Your task to perform on an android device: open app "ZOOM Cloud Meetings" (install if not already installed) Image 0: 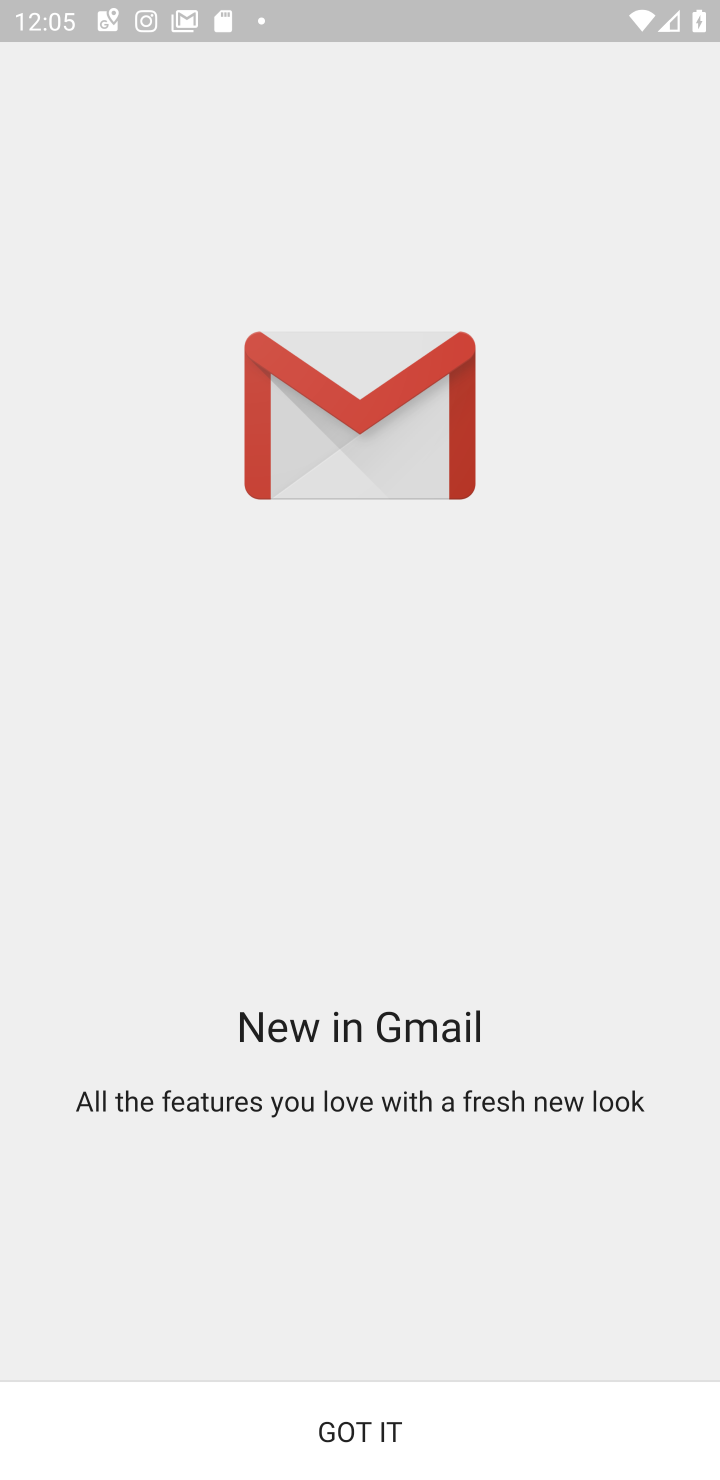
Step 0: press home button
Your task to perform on an android device: open app "ZOOM Cloud Meetings" (install if not already installed) Image 1: 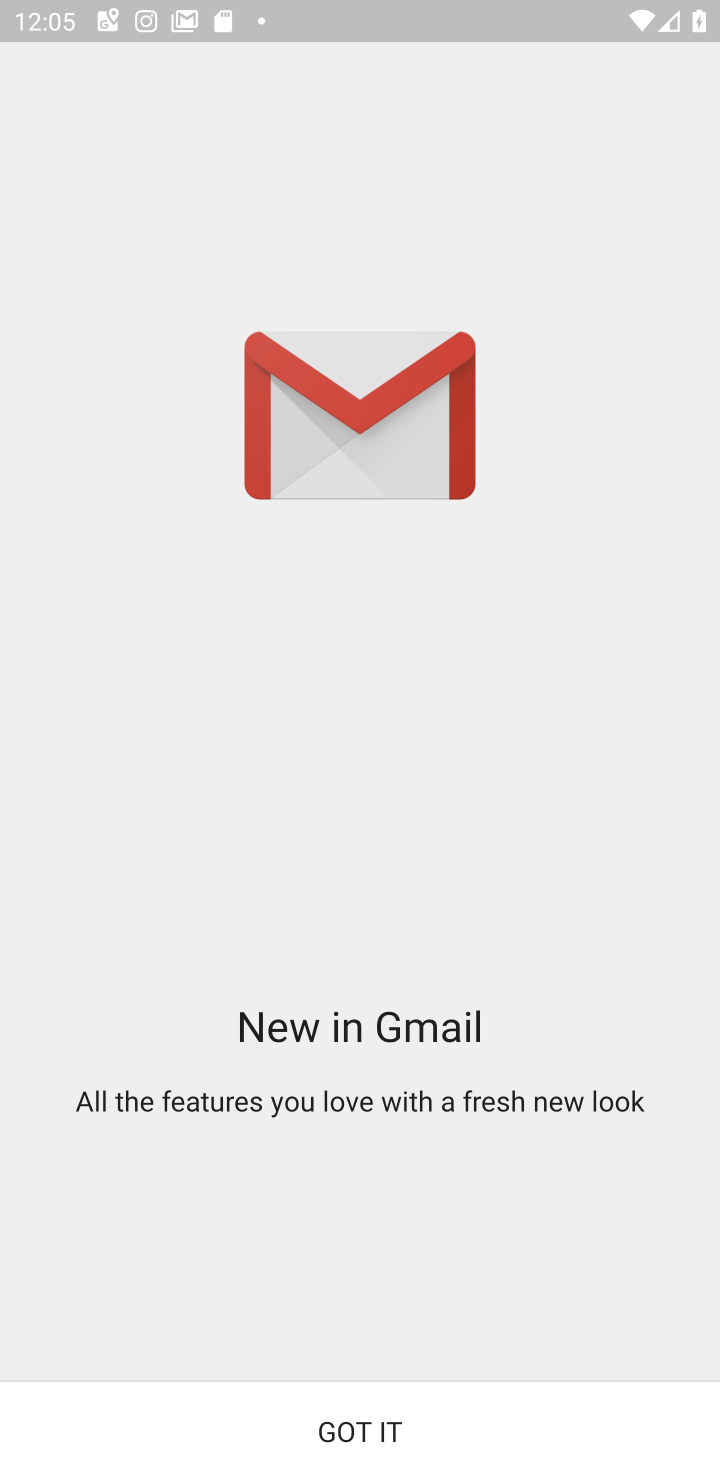
Step 1: press home button
Your task to perform on an android device: open app "ZOOM Cloud Meetings" (install if not already installed) Image 2: 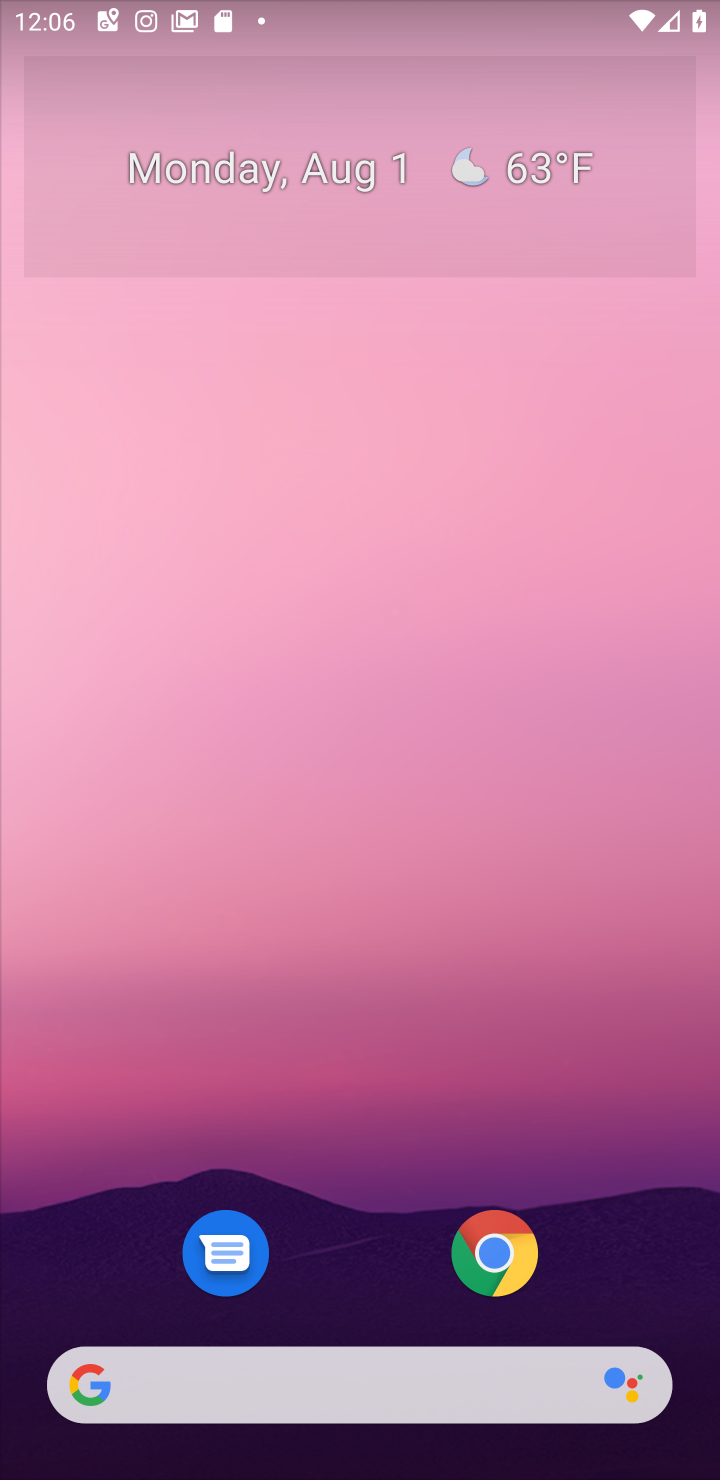
Step 2: drag from (380, 567) to (343, 11)
Your task to perform on an android device: open app "ZOOM Cloud Meetings" (install if not already installed) Image 3: 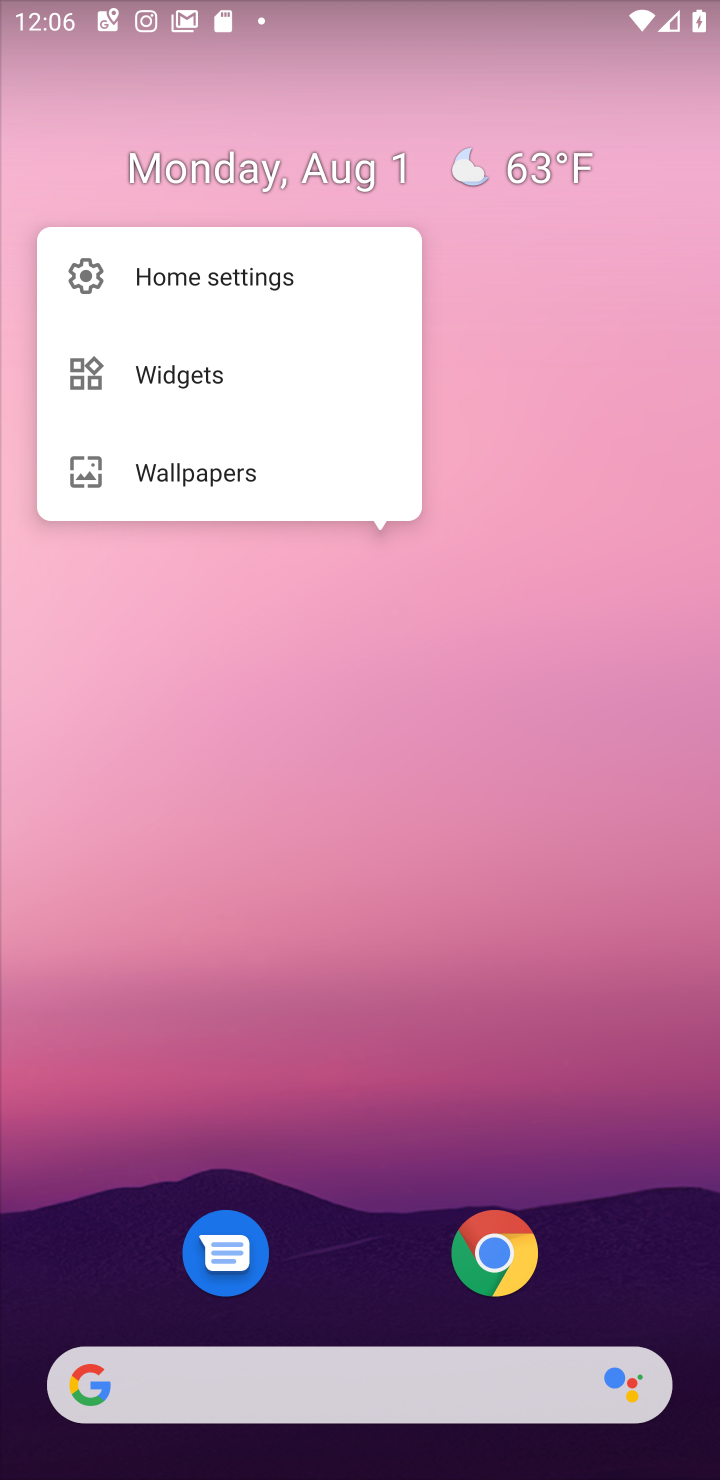
Step 3: click (598, 1013)
Your task to perform on an android device: open app "ZOOM Cloud Meetings" (install if not already installed) Image 4: 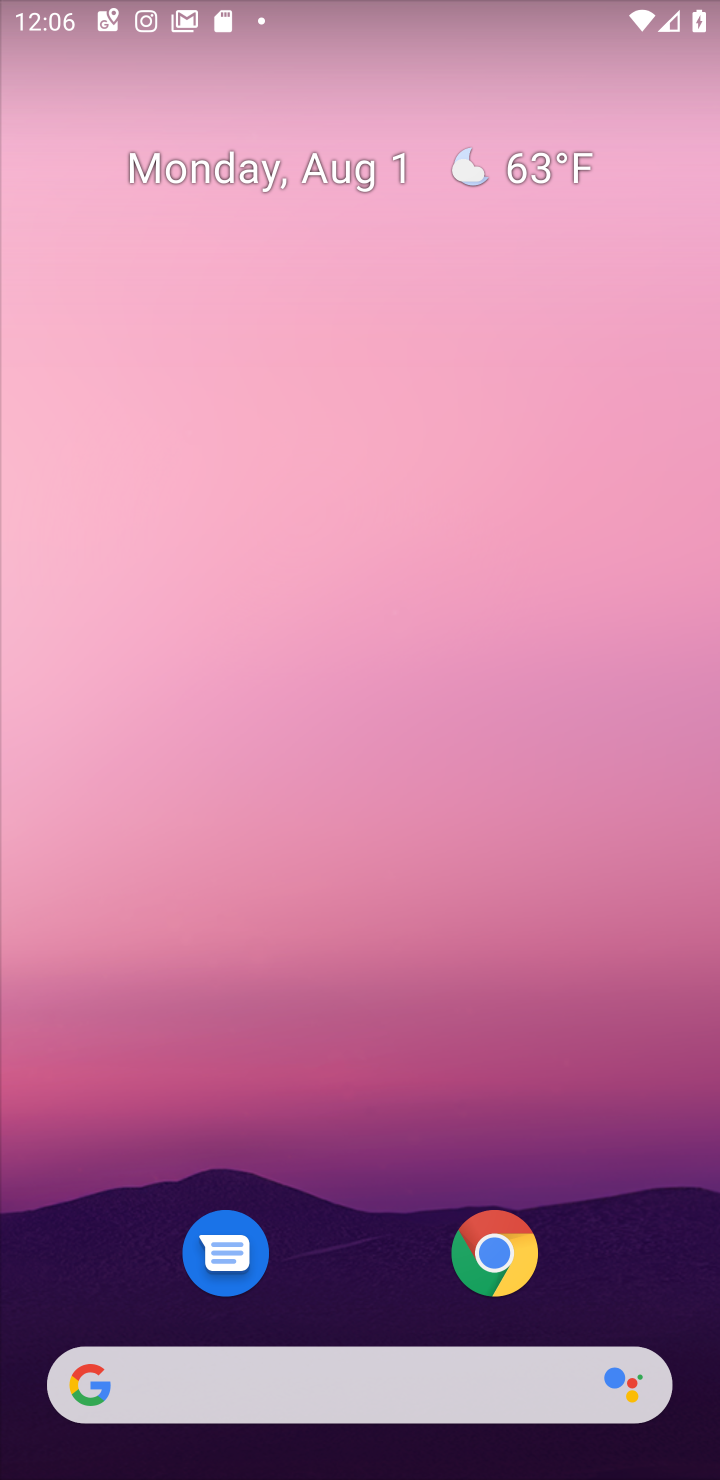
Step 4: drag from (506, 251) to (582, 0)
Your task to perform on an android device: open app "ZOOM Cloud Meetings" (install if not already installed) Image 5: 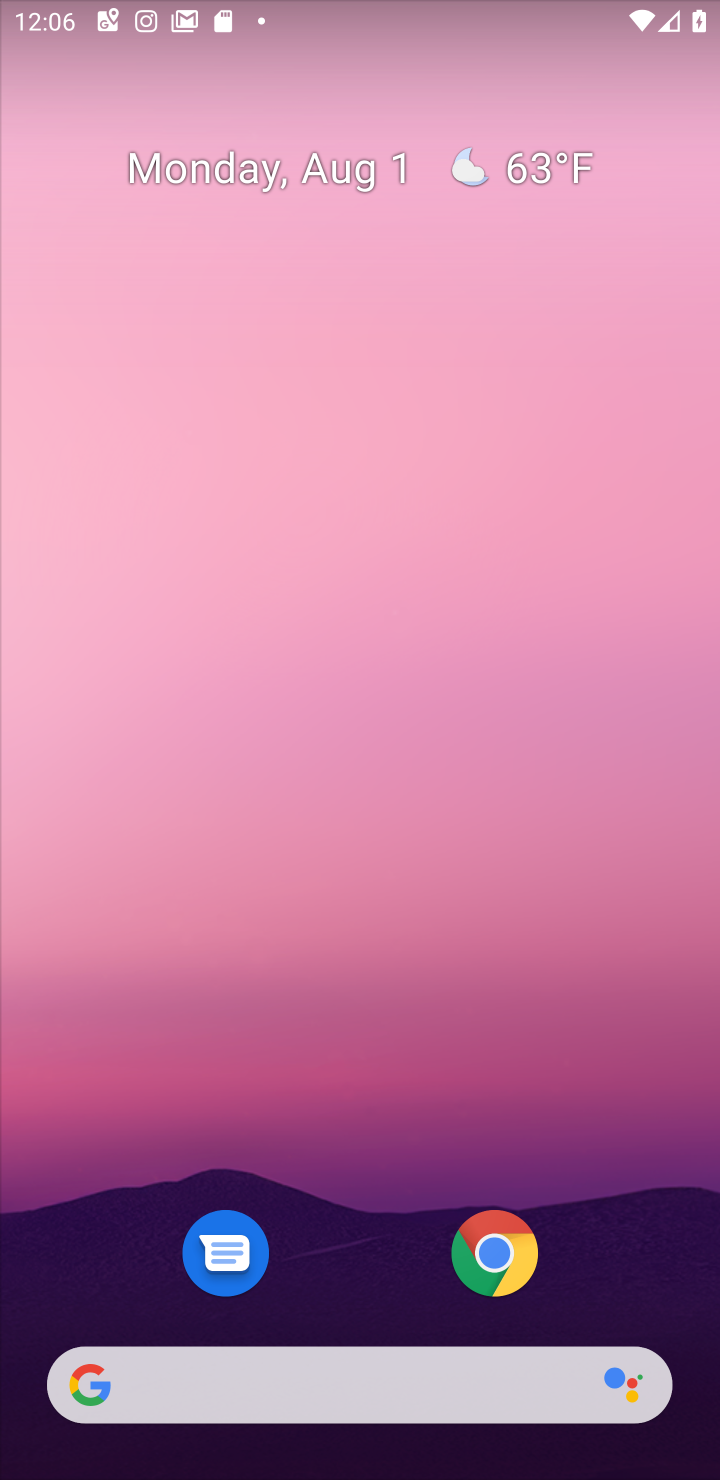
Step 5: drag from (296, 1422) to (263, 96)
Your task to perform on an android device: open app "ZOOM Cloud Meetings" (install if not already installed) Image 6: 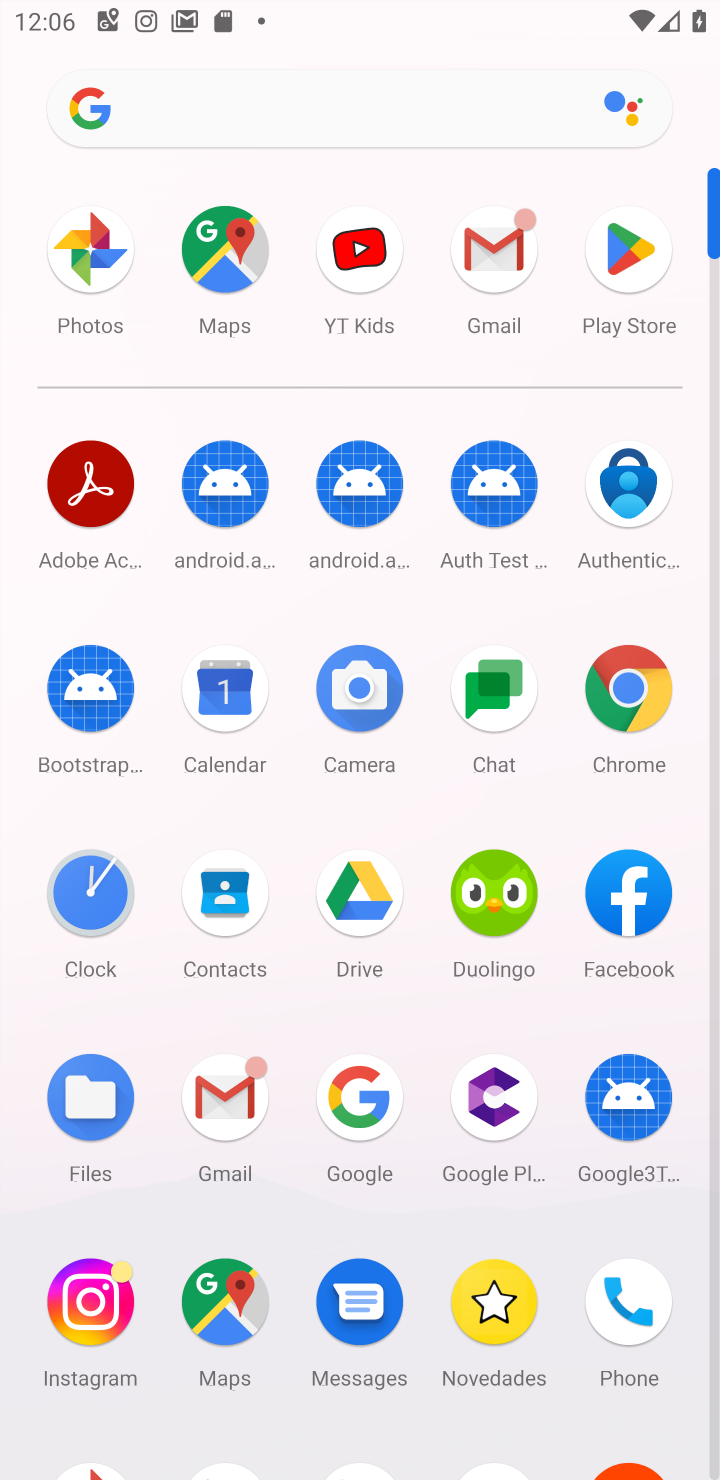
Step 6: click (637, 223)
Your task to perform on an android device: open app "ZOOM Cloud Meetings" (install if not already installed) Image 7: 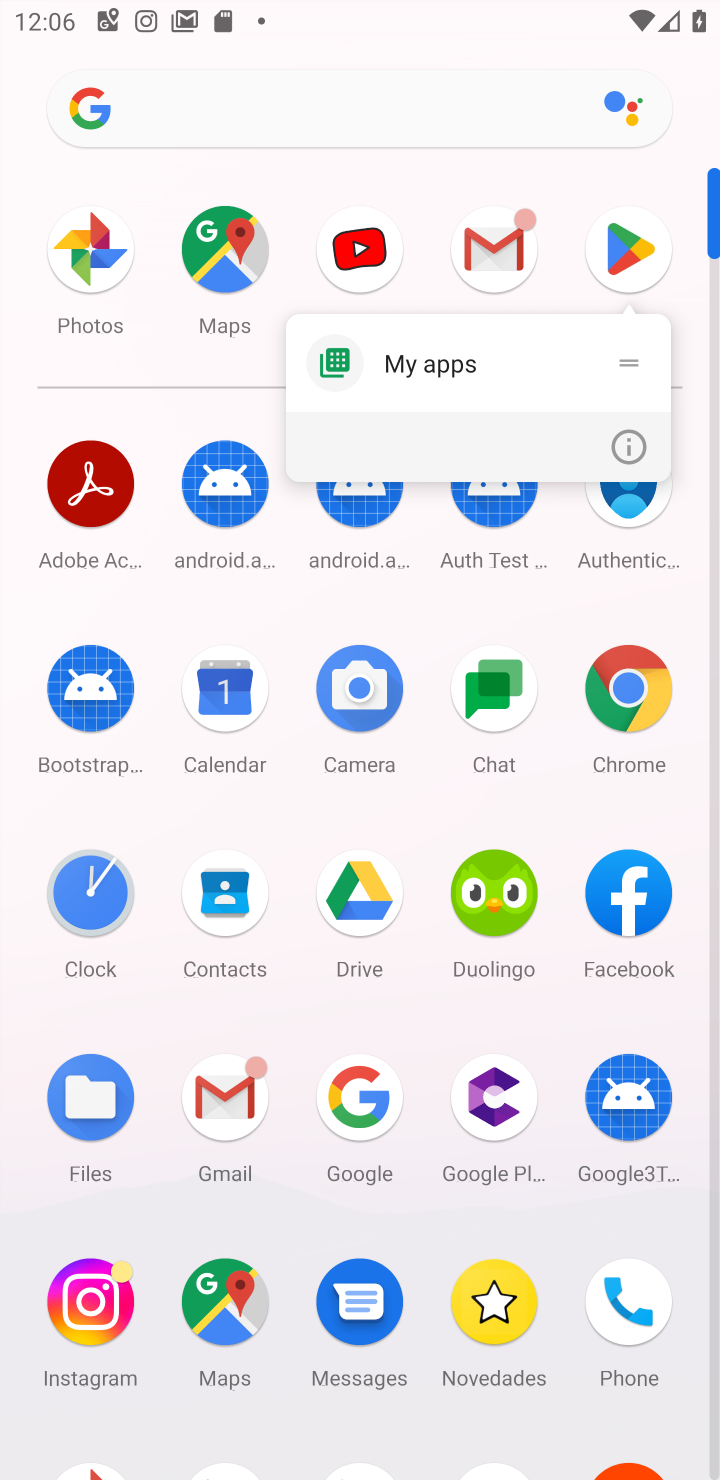
Step 7: click (648, 260)
Your task to perform on an android device: open app "ZOOM Cloud Meetings" (install if not already installed) Image 8: 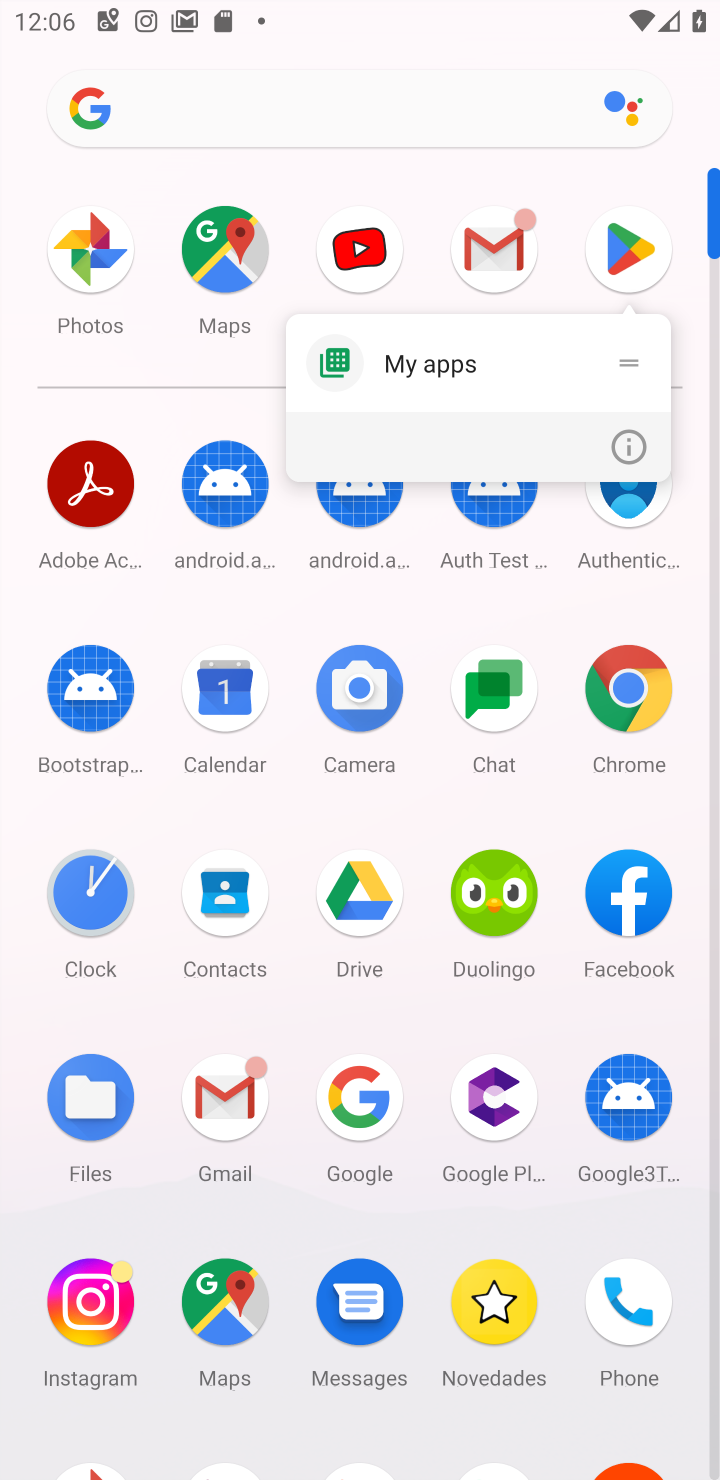
Step 8: click (643, 237)
Your task to perform on an android device: open app "ZOOM Cloud Meetings" (install if not already installed) Image 9: 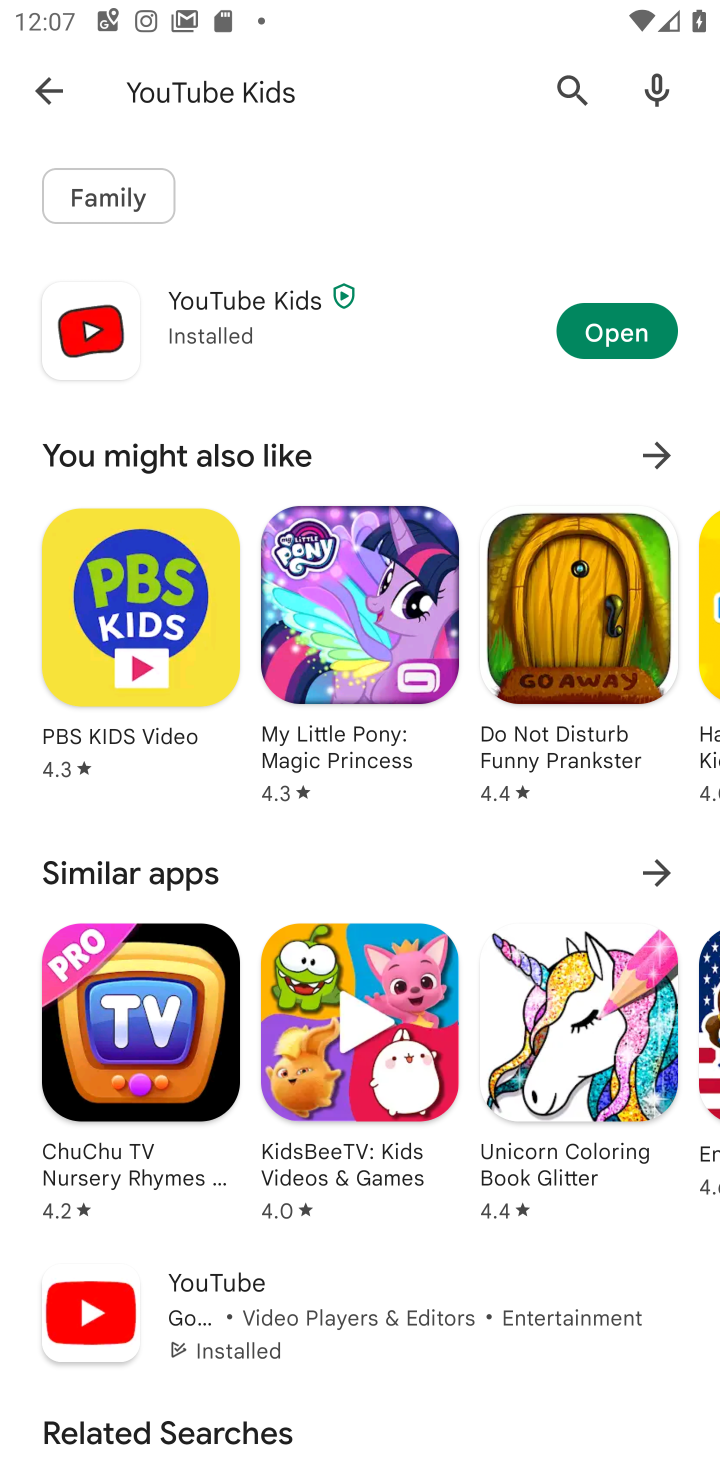
Step 9: click (562, 85)
Your task to perform on an android device: open app "ZOOM Cloud Meetings" (install if not already installed) Image 10: 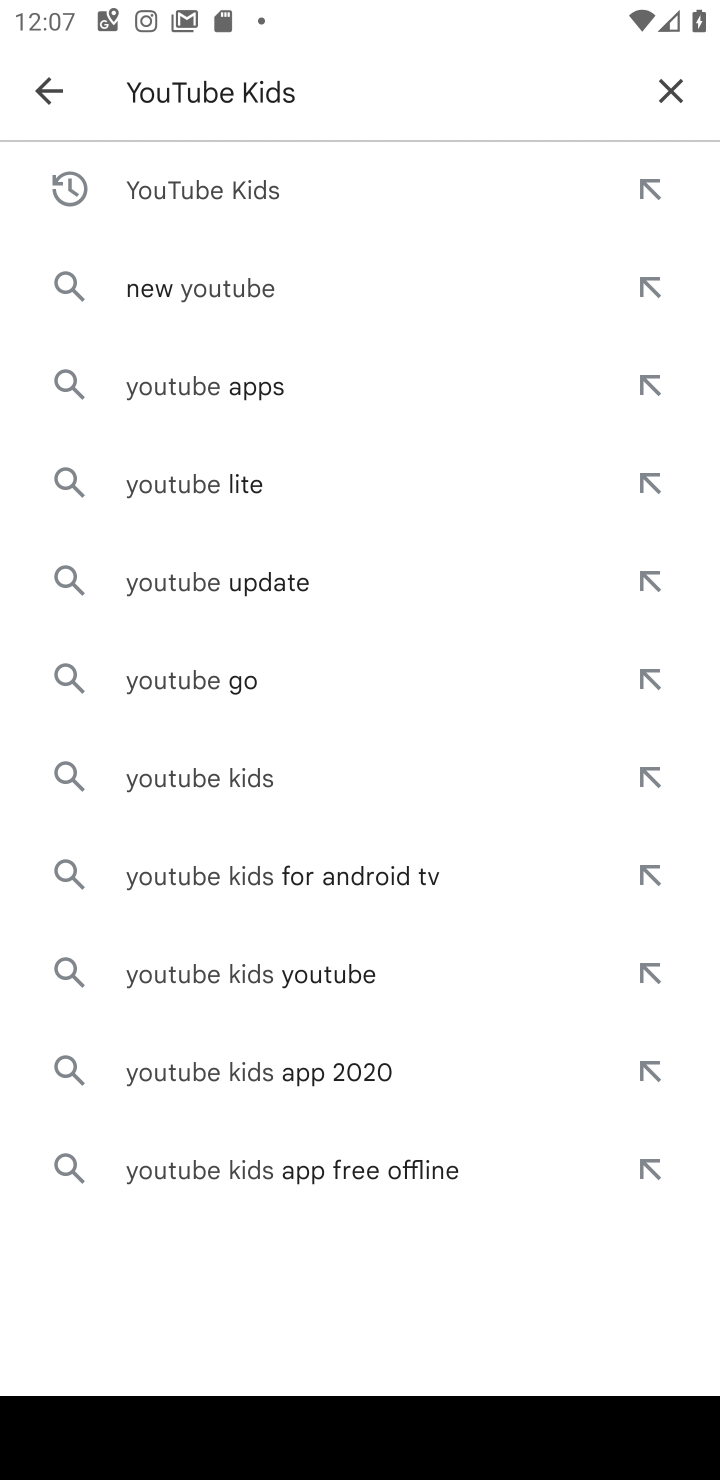
Step 10: click (676, 77)
Your task to perform on an android device: open app "ZOOM Cloud Meetings" (install if not already installed) Image 11: 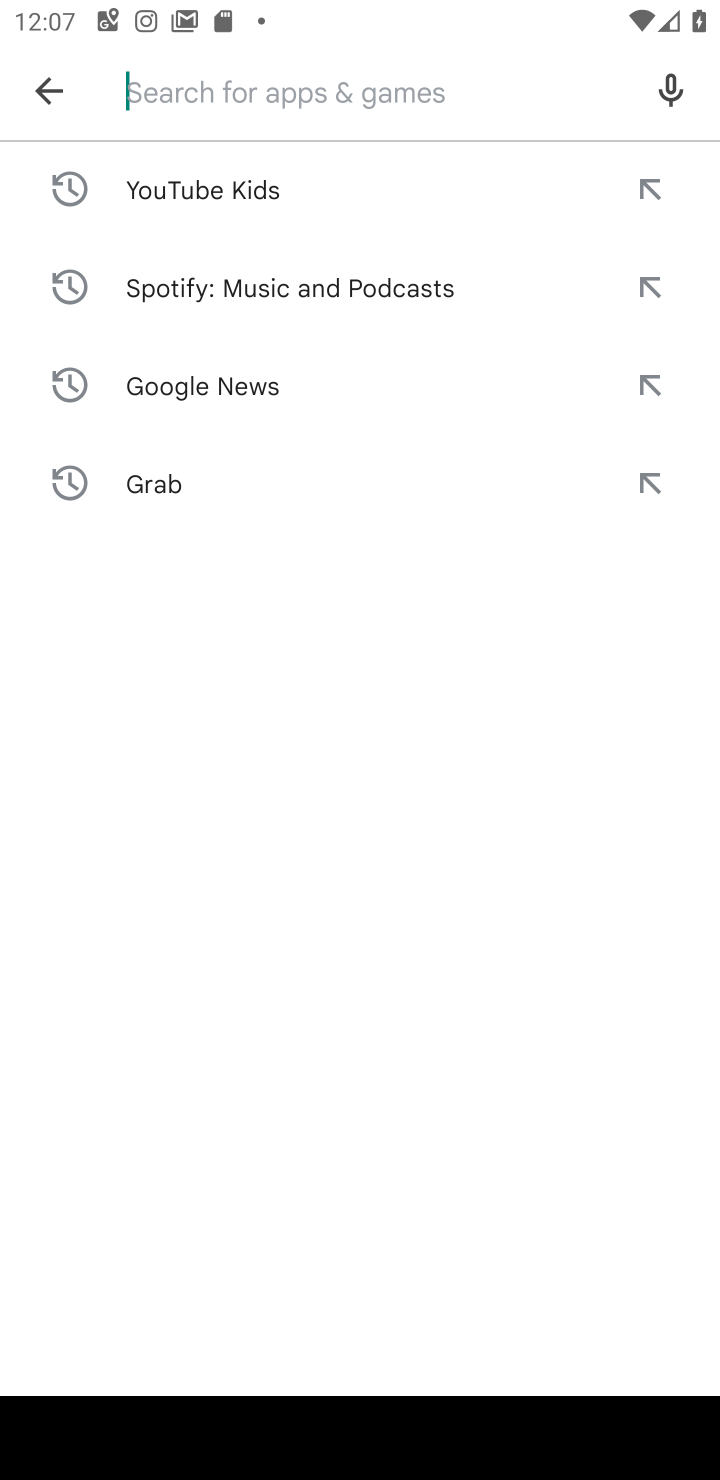
Step 11: type "ZOOM Cloud Meetings"
Your task to perform on an android device: open app "ZOOM Cloud Meetings" (install if not already installed) Image 12: 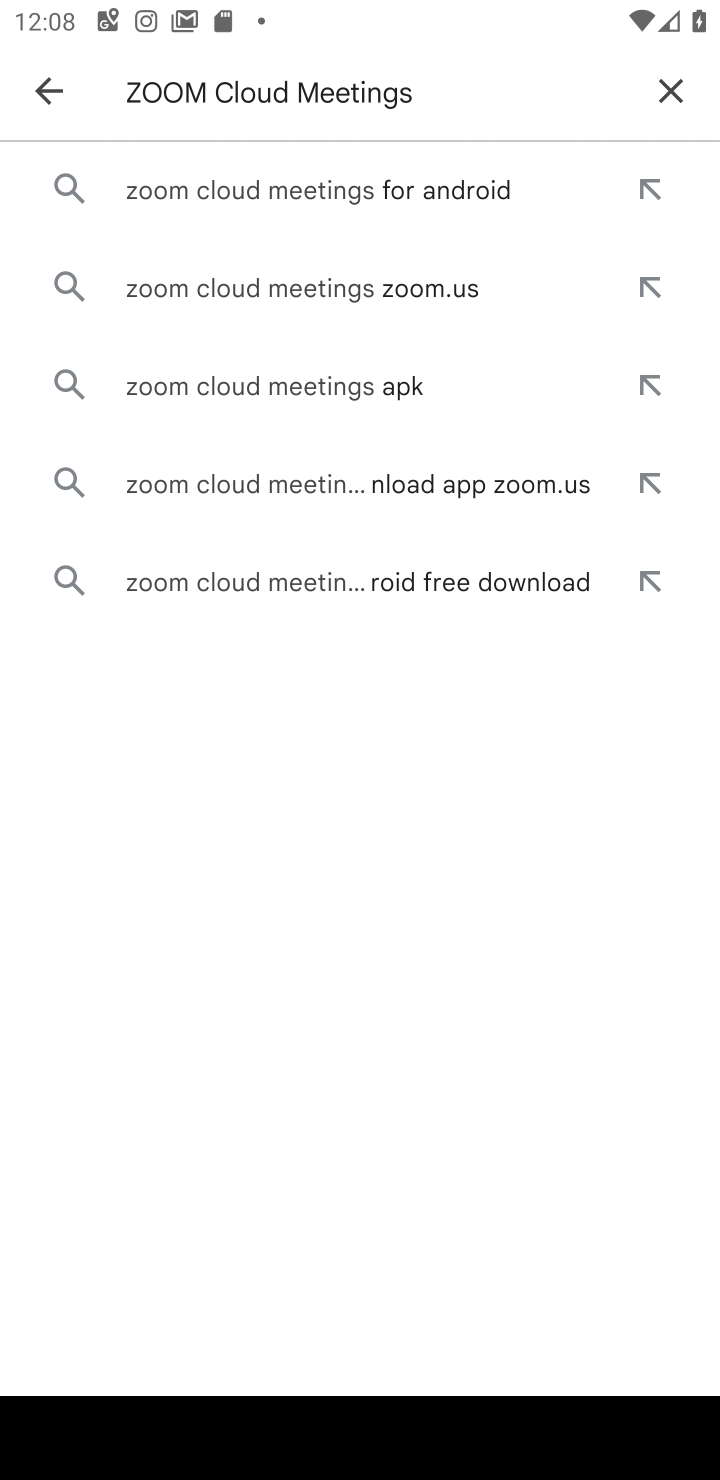
Step 12: press enter
Your task to perform on an android device: open app "ZOOM Cloud Meetings" (install if not already installed) Image 13: 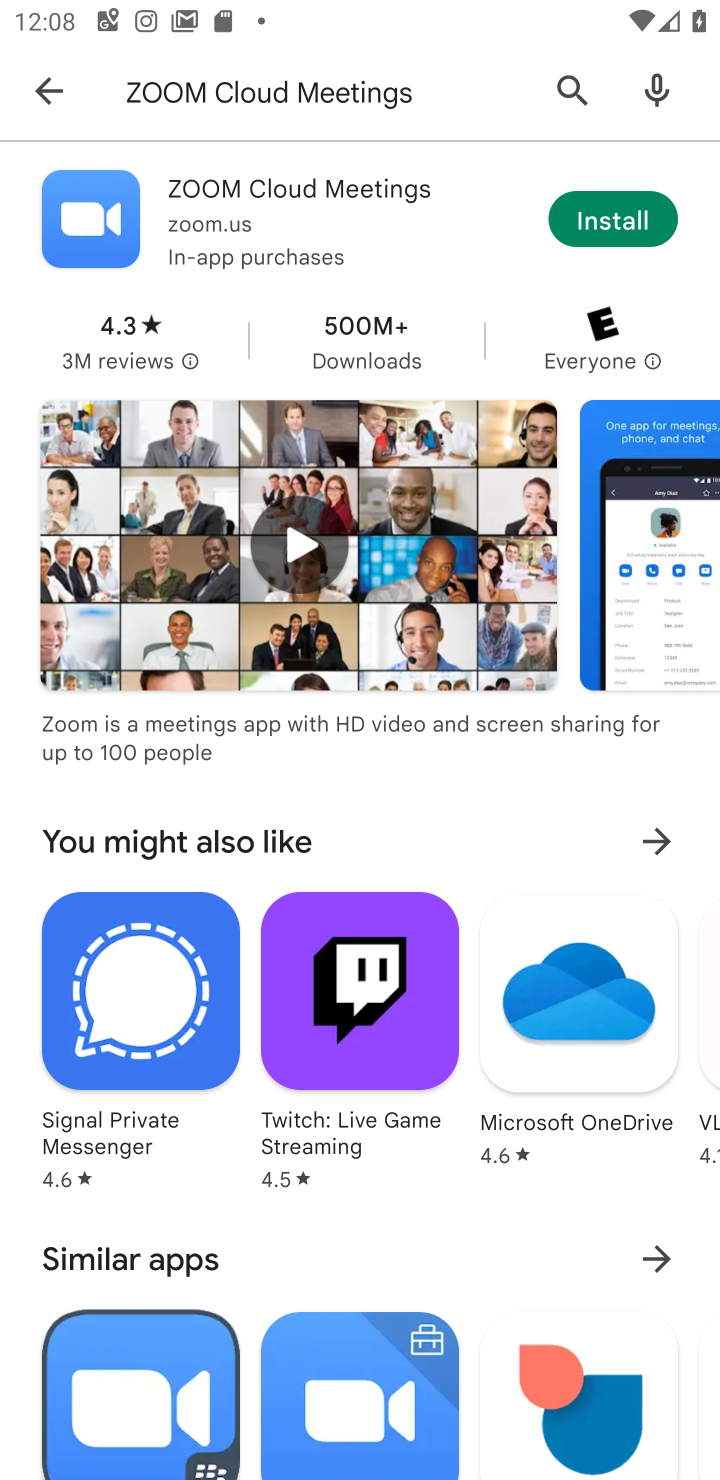
Step 13: click (617, 211)
Your task to perform on an android device: open app "ZOOM Cloud Meetings" (install if not already installed) Image 14: 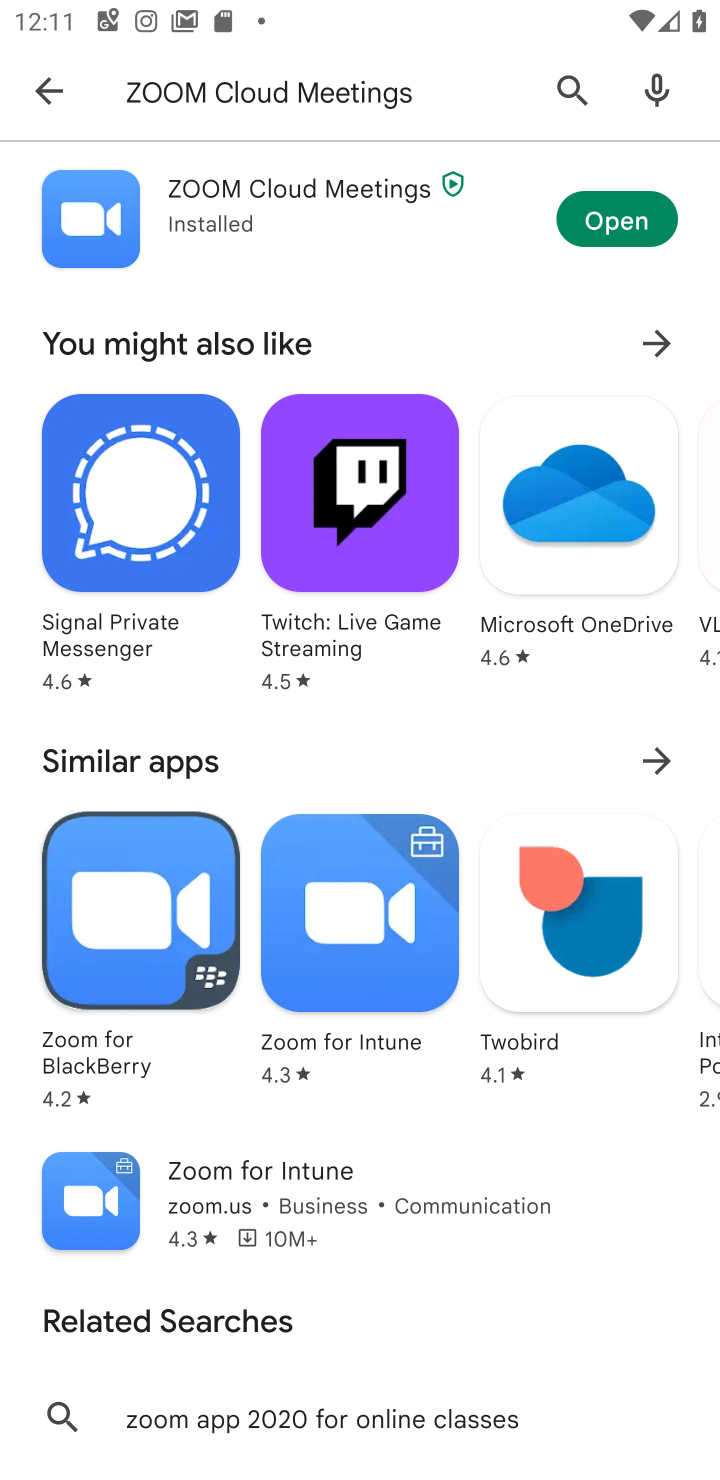
Step 14: click (615, 203)
Your task to perform on an android device: open app "ZOOM Cloud Meetings" (install if not already installed) Image 15: 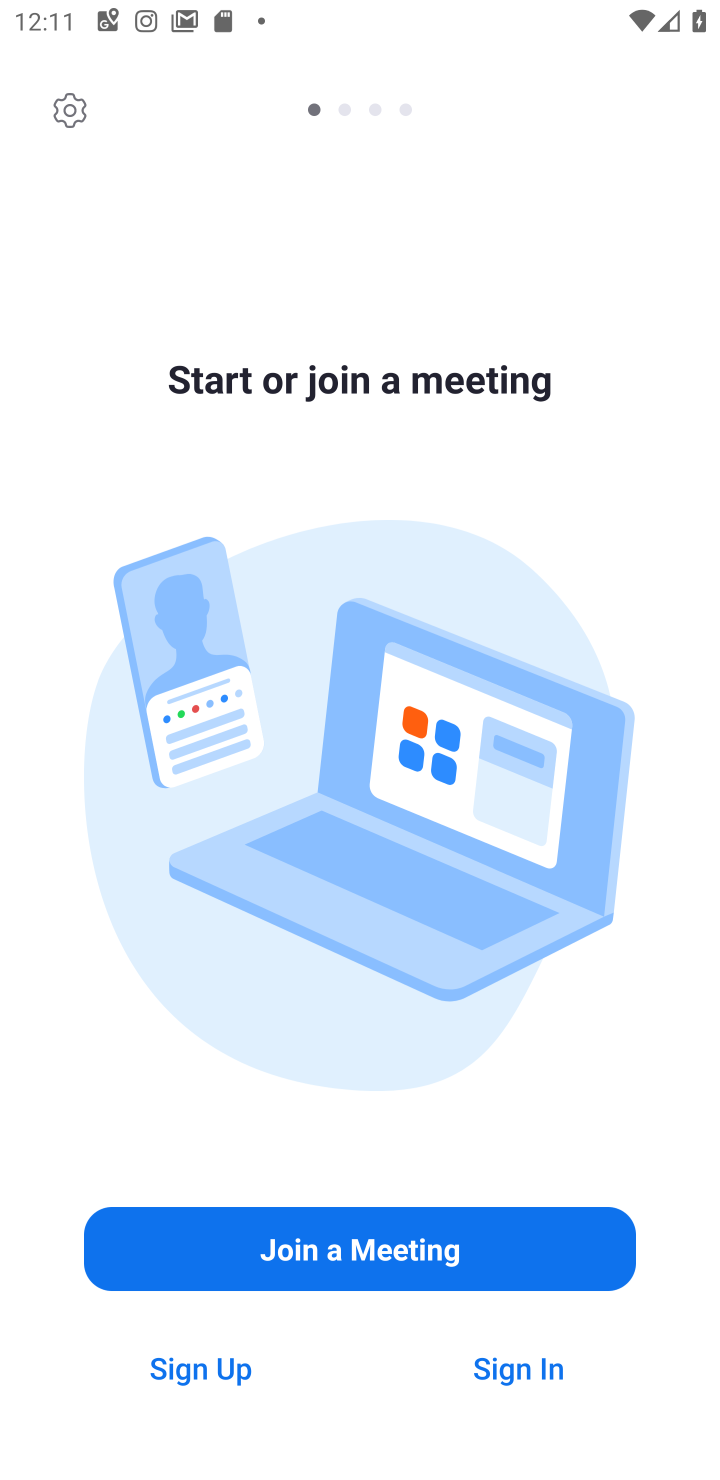
Step 15: task complete